Your task to perform on an android device: see tabs open on other devices in the chrome app Image 0: 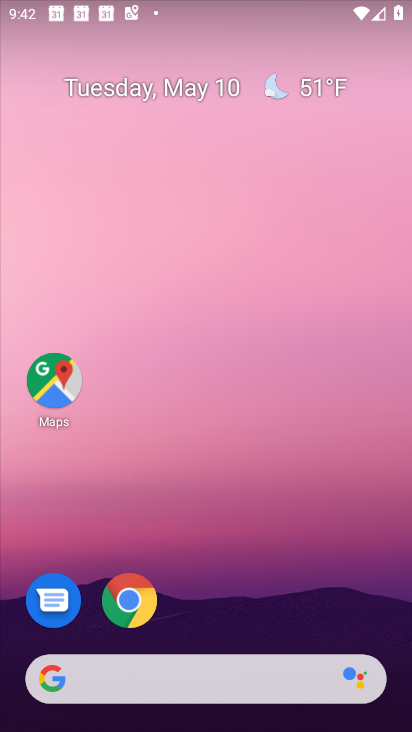
Step 0: click (134, 585)
Your task to perform on an android device: see tabs open on other devices in the chrome app Image 1: 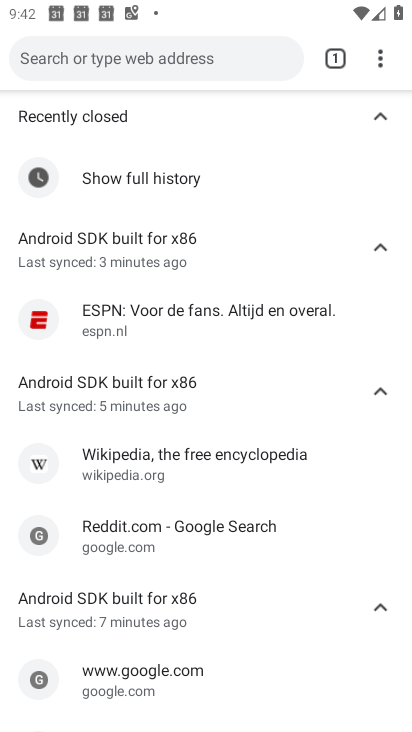
Step 1: click (383, 54)
Your task to perform on an android device: see tabs open on other devices in the chrome app Image 2: 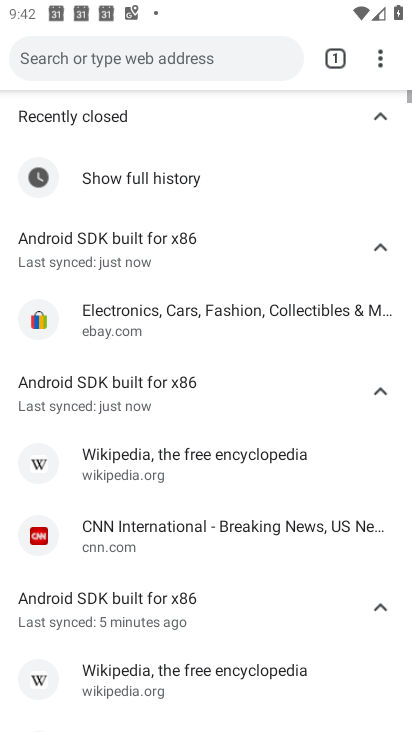
Step 2: click (382, 57)
Your task to perform on an android device: see tabs open on other devices in the chrome app Image 3: 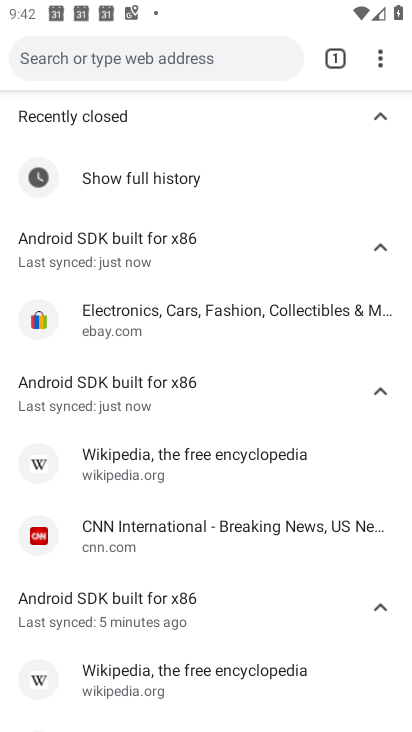
Step 3: click (377, 49)
Your task to perform on an android device: see tabs open on other devices in the chrome app Image 4: 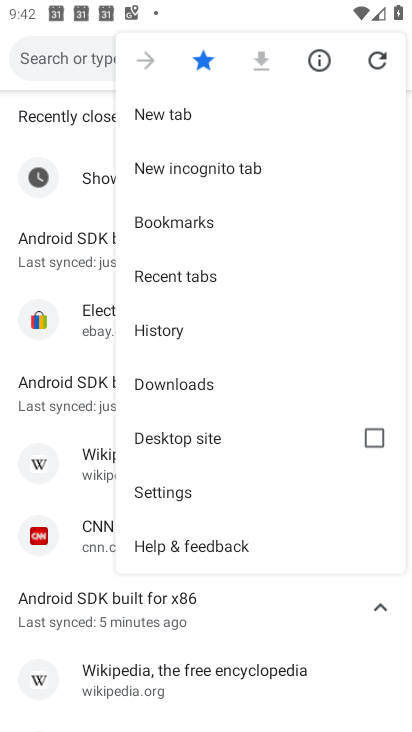
Step 4: click (216, 280)
Your task to perform on an android device: see tabs open on other devices in the chrome app Image 5: 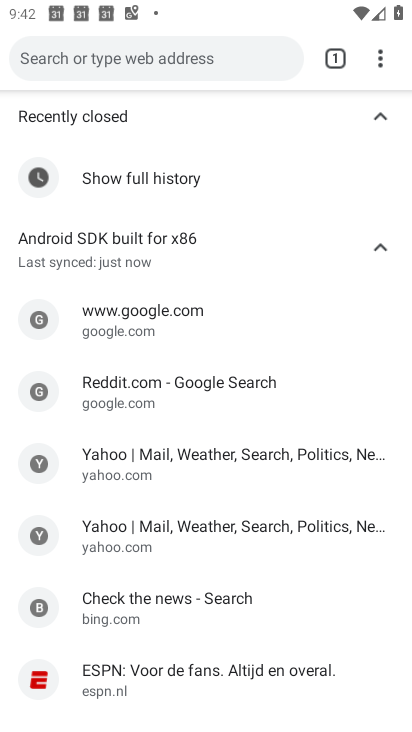
Step 5: task complete